Your task to perform on an android device: toggle sleep mode Image 0: 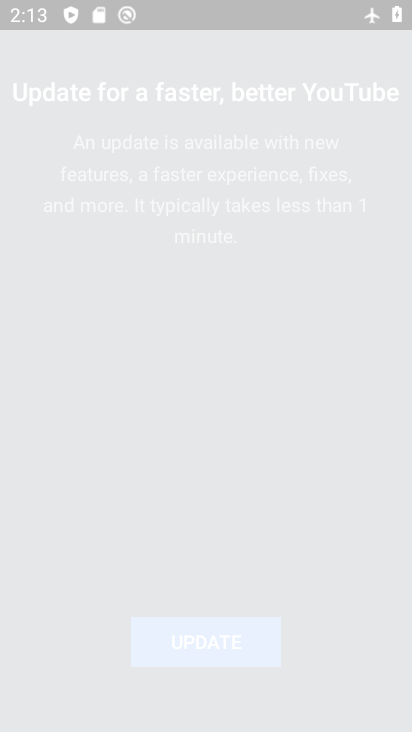
Step 0: click (254, 587)
Your task to perform on an android device: toggle sleep mode Image 1: 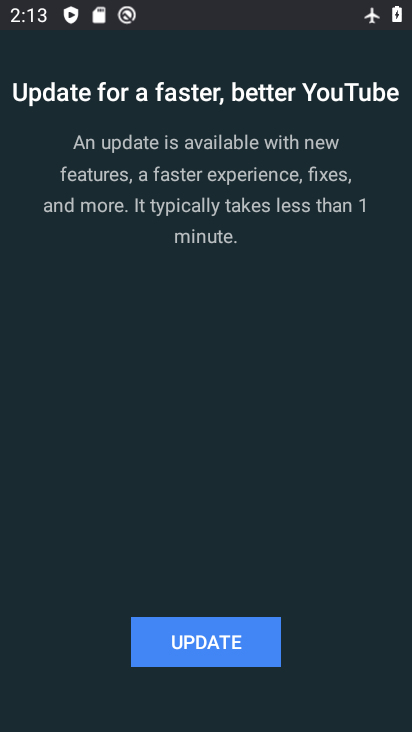
Step 1: click (235, 656)
Your task to perform on an android device: toggle sleep mode Image 2: 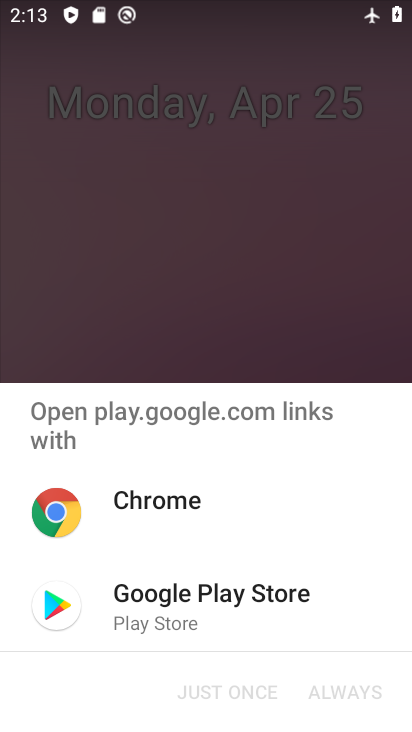
Step 2: click (177, 600)
Your task to perform on an android device: toggle sleep mode Image 3: 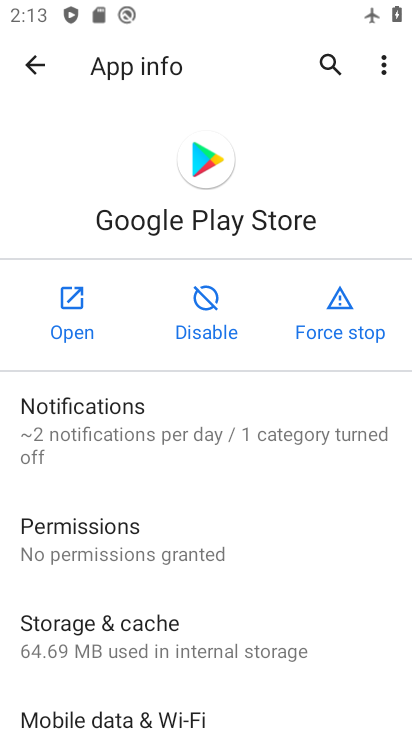
Step 3: press home button
Your task to perform on an android device: toggle sleep mode Image 4: 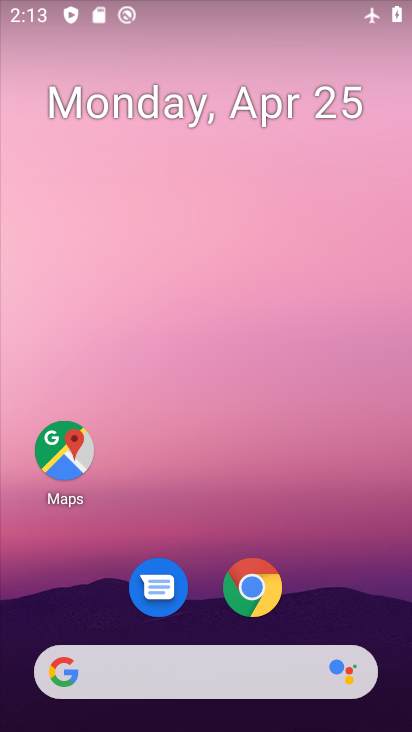
Step 4: drag from (338, 442) to (306, 83)
Your task to perform on an android device: toggle sleep mode Image 5: 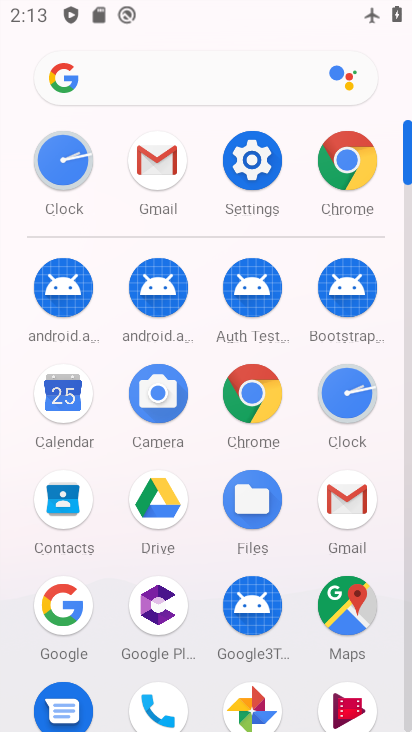
Step 5: click (256, 171)
Your task to perform on an android device: toggle sleep mode Image 6: 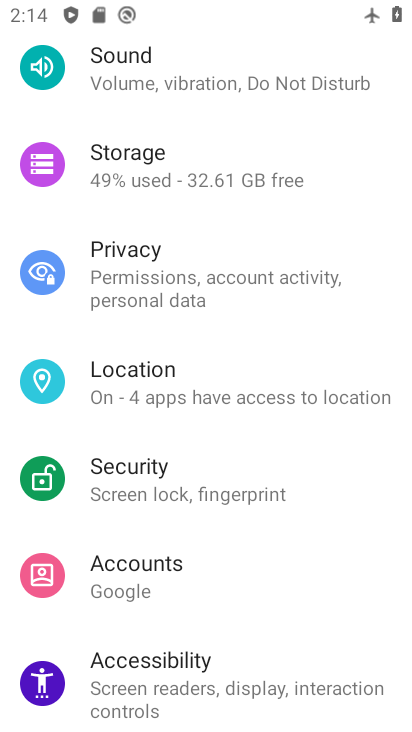
Step 6: drag from (249, 215) to (269, 538)
Your task to perform on an android device: toggle sleep mode Image 7: 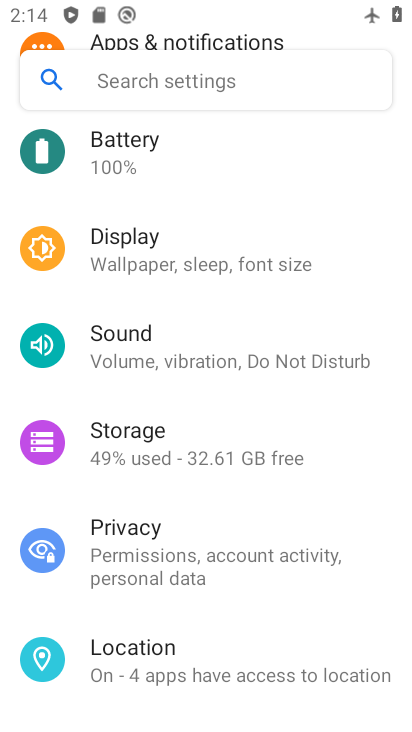
Step 7: click (220, 271)
Your task to perform on an android device: toggle sleep mode Image 8: 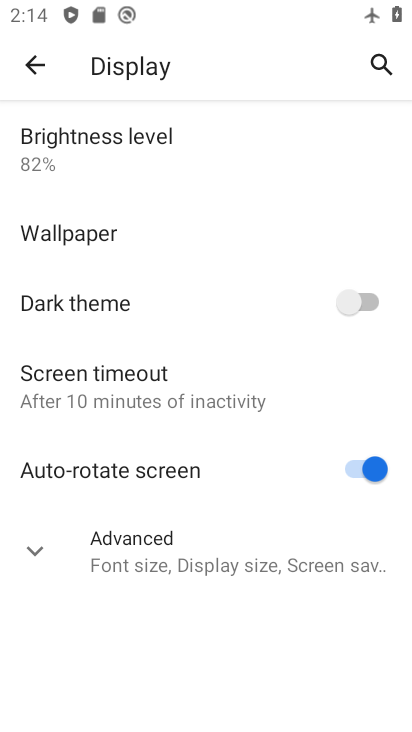
Step 8: click (202, 380)
Your task to perform on an android device: toggle sleep mode Image 9: 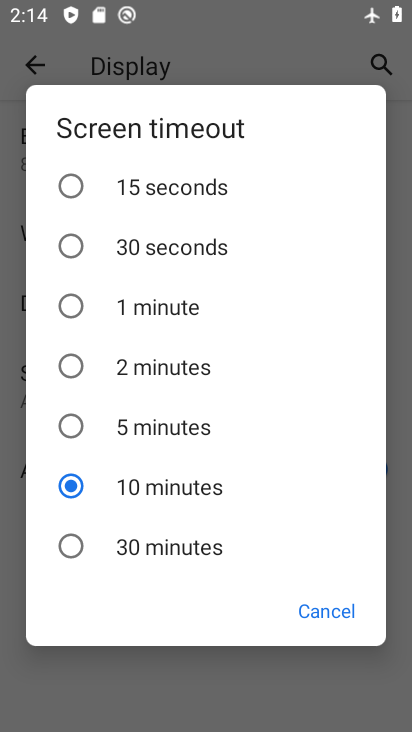
Step 9: click (162, 532)
Your task to perform on an android device: toggle sleep mode Image 10: 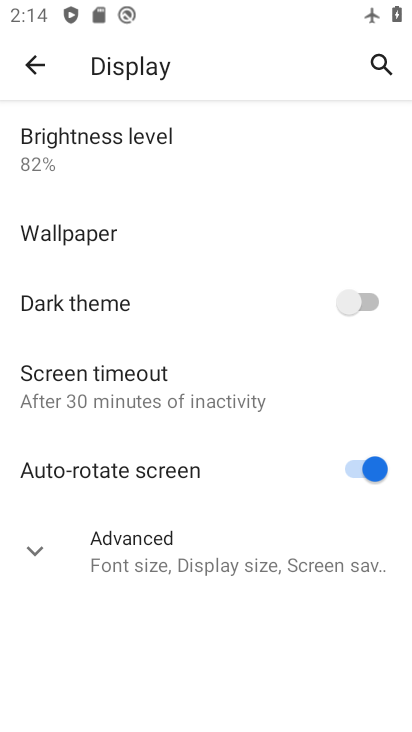
Step 10: task complete